Your task to perform on an android device: Go to network settings Image 0: 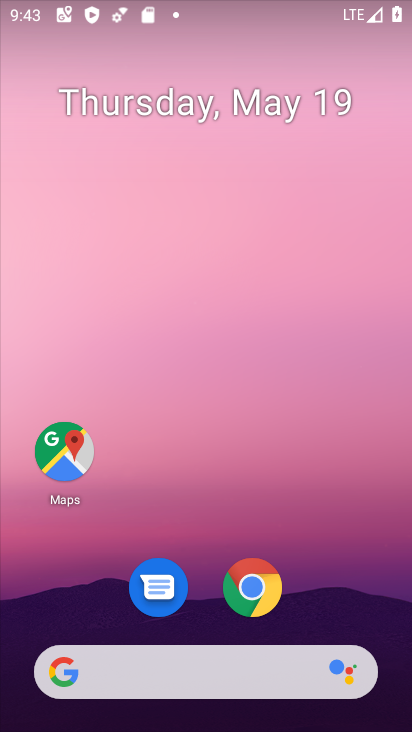
Step 0: drag from (228, 11) to (171, 635)
Your task to perform on an android device: Go to network settings Image 1: 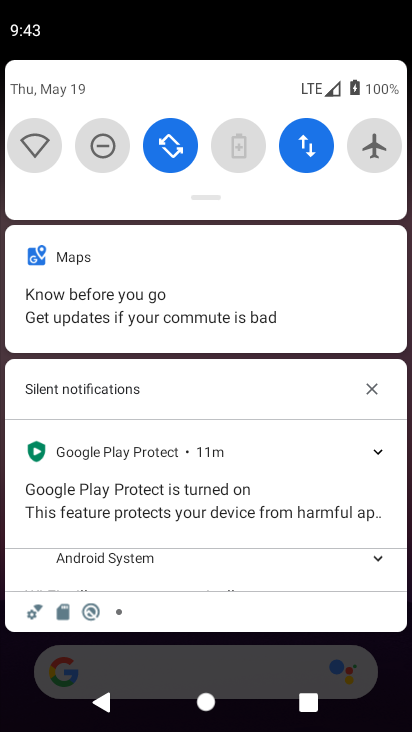
Step 1: click (314, 155)
Your task to perform on an android device: Go to network settings Image 2: 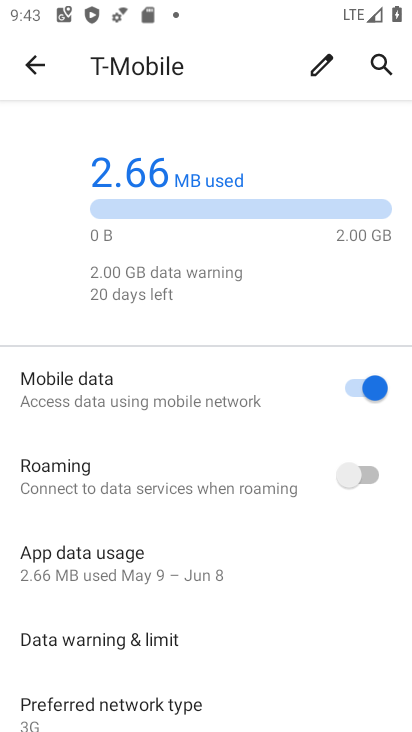
Step 2: task complete